Your task to perform on an android device: Open calendar and show me the fourth week of next month Image 0: 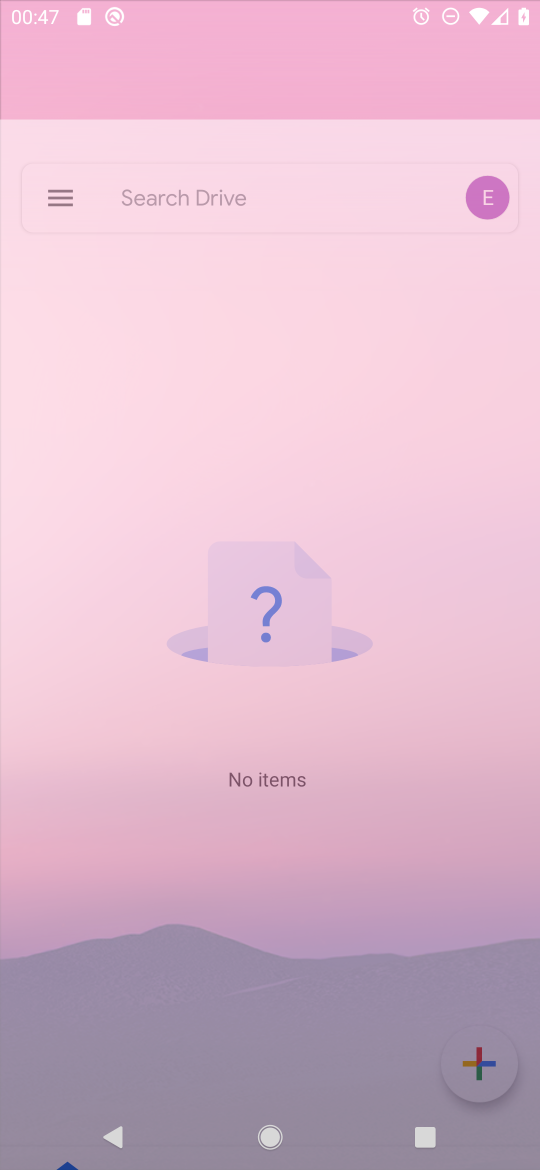
Step 0: press home button
Your task to perform on an android device: Open calendar and show me the fourth week of next month Image 1: 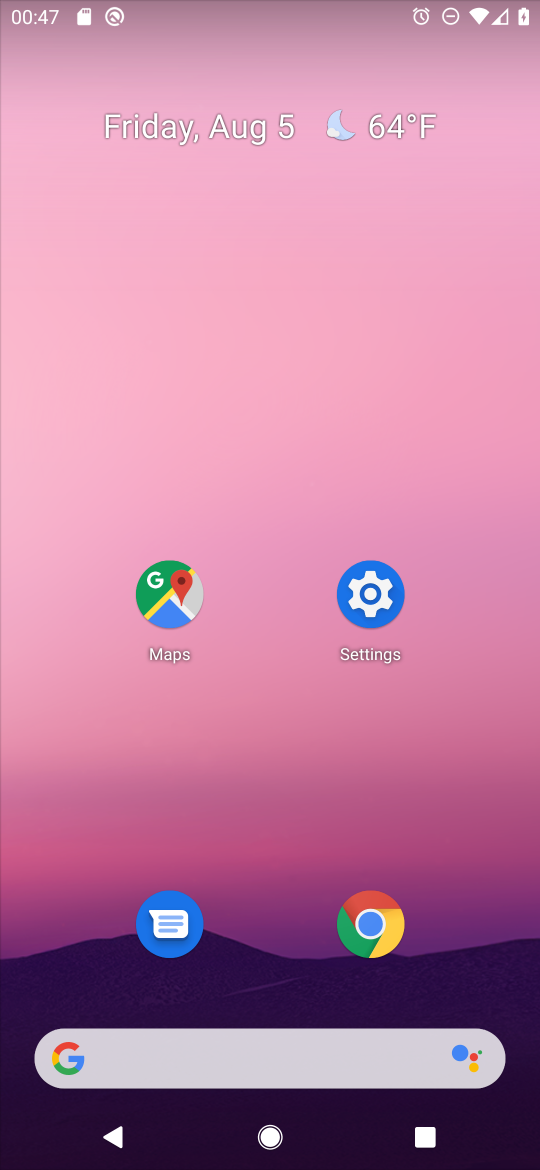
Step 1: drag from (229, 1022) to (343, 229)
Your task to perform on an android device: Open calendar and show me the fourth week of next month Image 2: 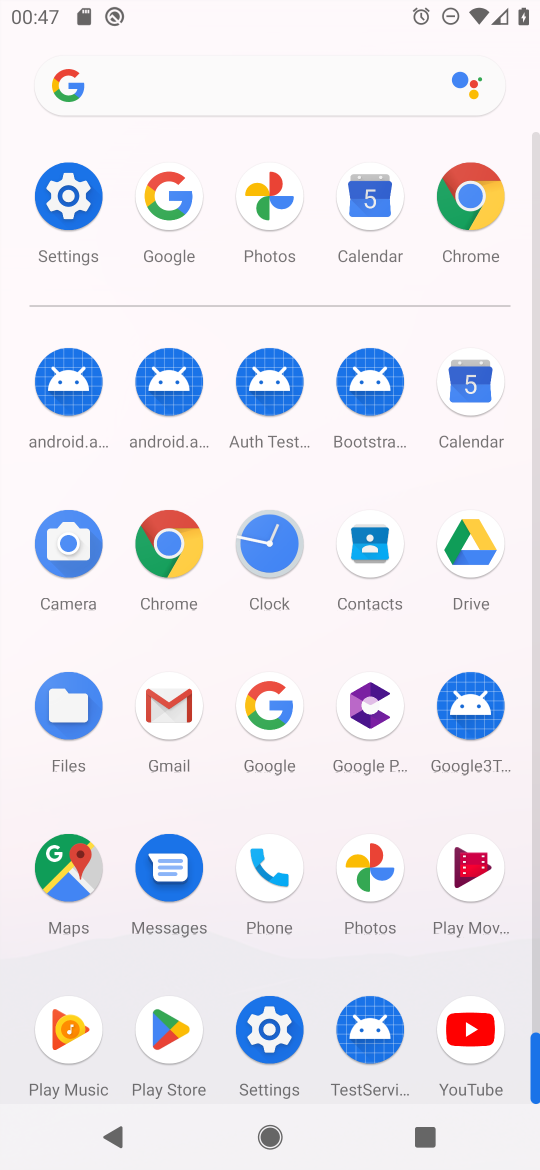
Step 2: click (482, 391)
Your task to perform on an android device: Open calendar and show me the fourth week of next month Image 3: 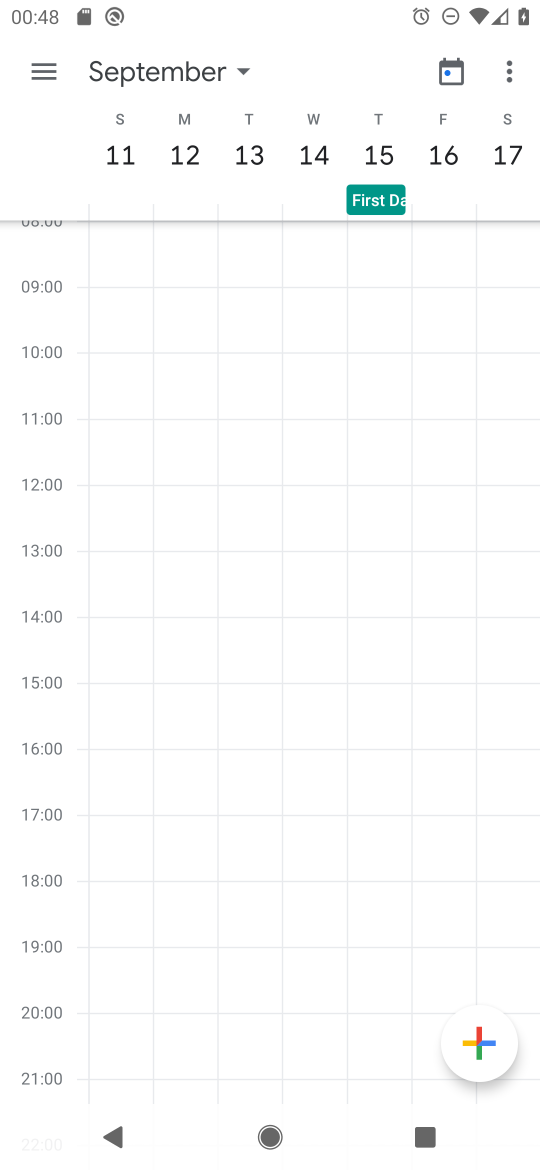
Step 3: click (132, 70)
Your task to perform on an android device: Open calendar and show me the fourth week of next month Image 4: 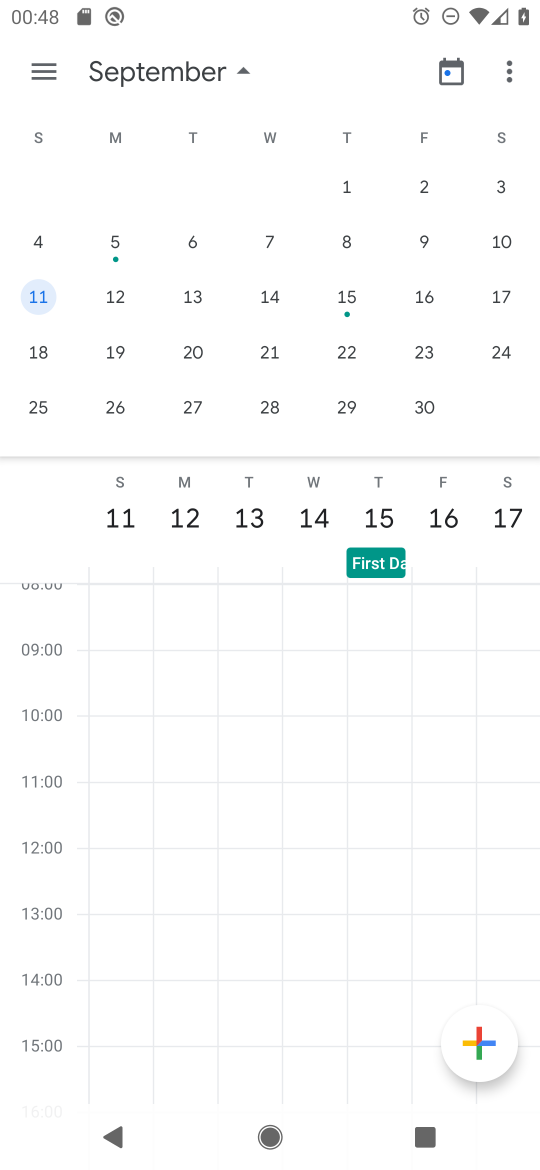
Step 4: click (41, 353)
Your task to perform on an android device: Open calendar and show me the fourth week of next month Image 5: 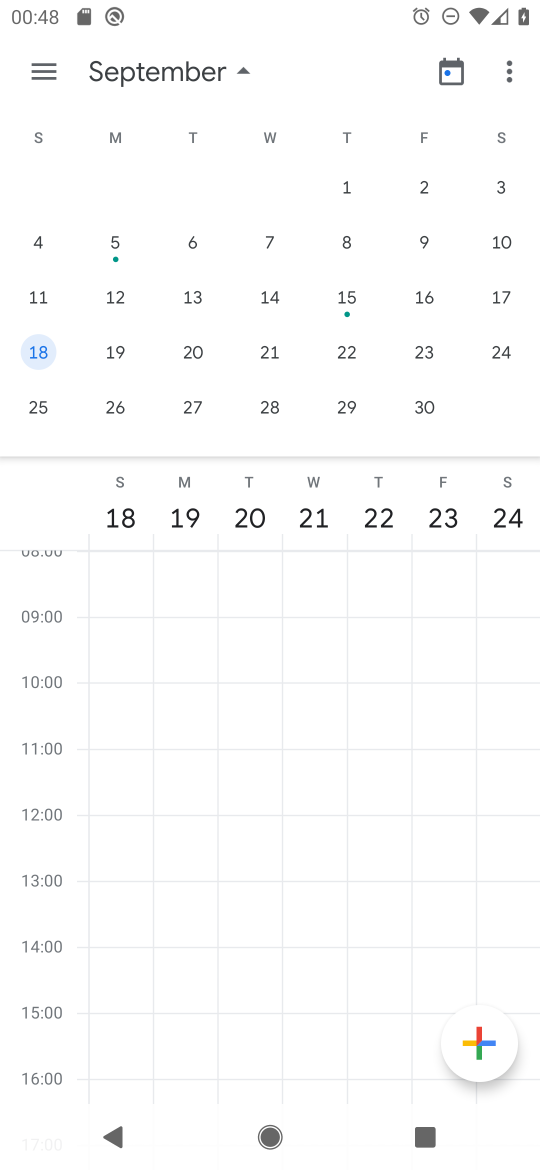
Step 5: task complete